Your task to perform on an android device: Clear the shopping cart on ebay.com. Search for asus zenbook on ebay.com, select the first entry, add it to the cart, then select checkout. Image 0: 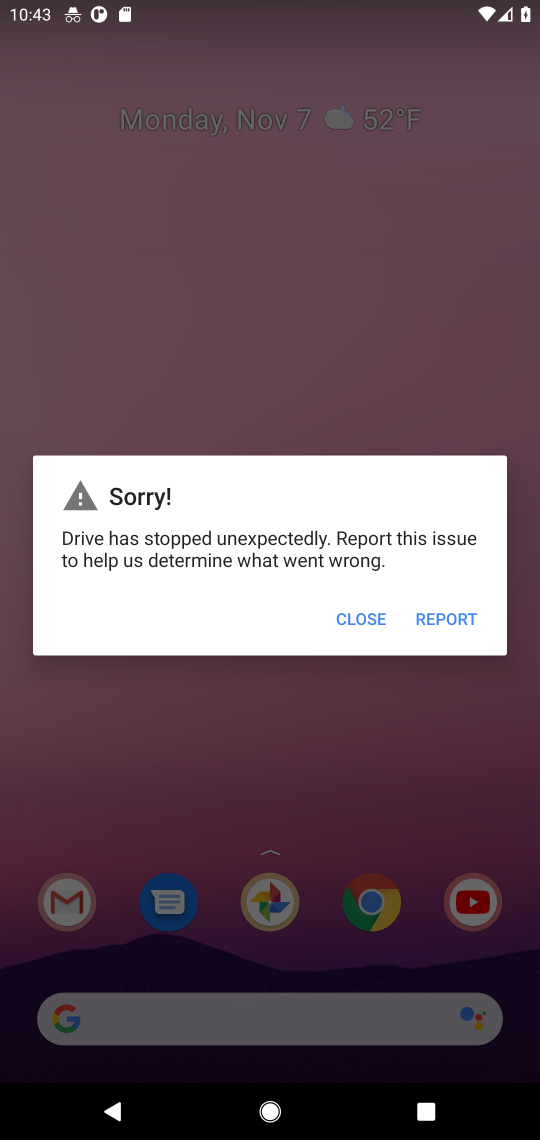
Step 0: press home button
Your task to perform on an android device: Clear the shopping cart on ebay.com. Search for asus zenbook on ebay.com, select the first entry, add it to the cart, then select checkout. Image 1: 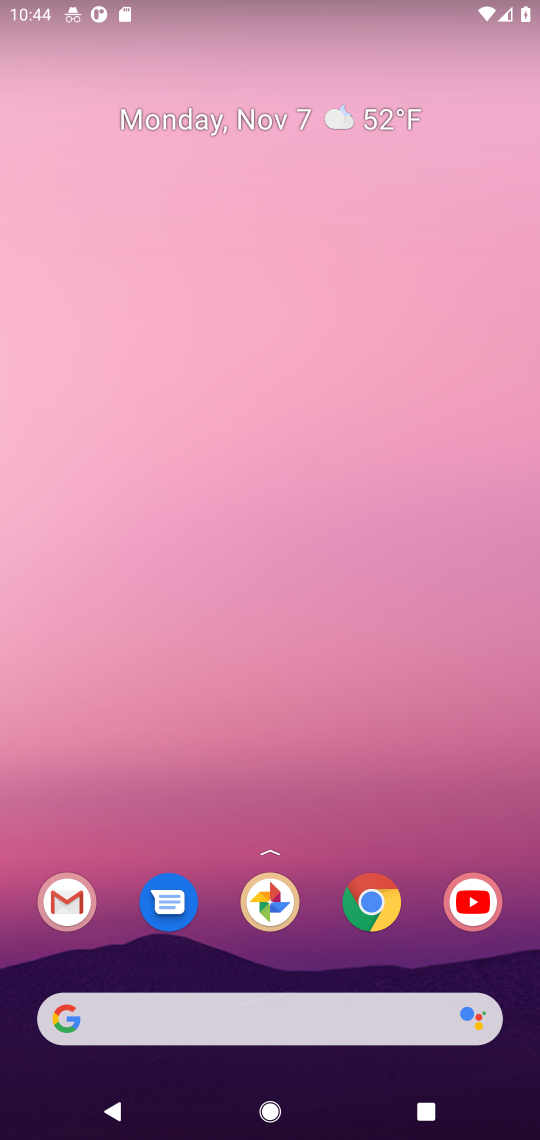
Step 1: click (372, 909)
Your task to perform on an android device: Clear the shopping cart on ebay.com. Search for asus zenbook on ebay.com, select the first entry, add it to the cart, then select checkout. Image 2: 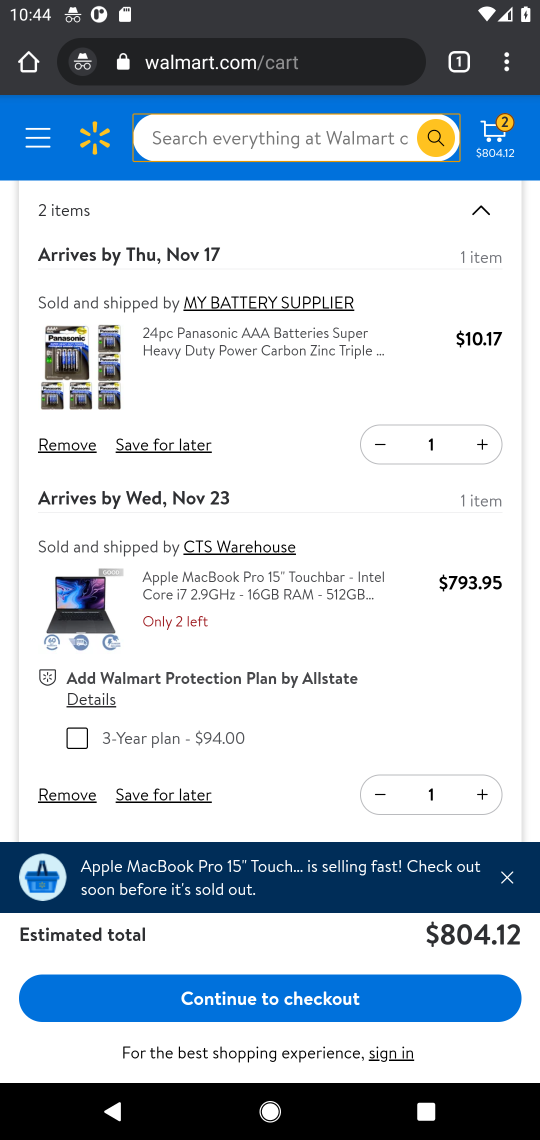
Step 2: click (213, 69)
Your task to perform on an android device: Clear the shopping cart on ebay.com. Search for asus zenbook on ebay.com, select the first entry, add it to the cart, then select checkout. Image 3: 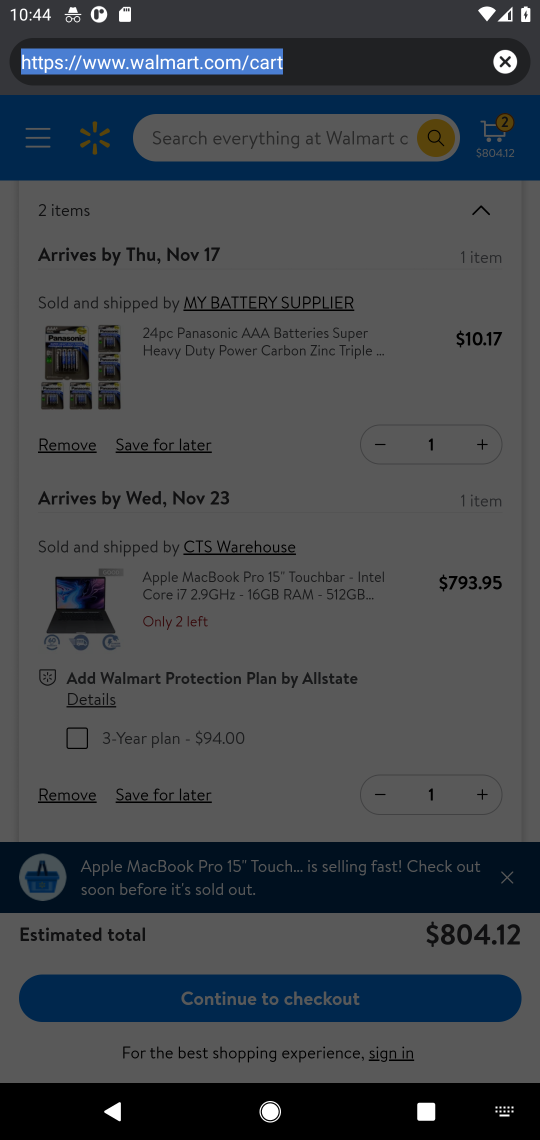
Step 3: type "ebay.com"
Your task to perform on an android device: Clear the shopping cart on ebay.com. Search for asus zenbook on ebay.com, select the first entry, add it to the cart, then select checkout. Image 4: 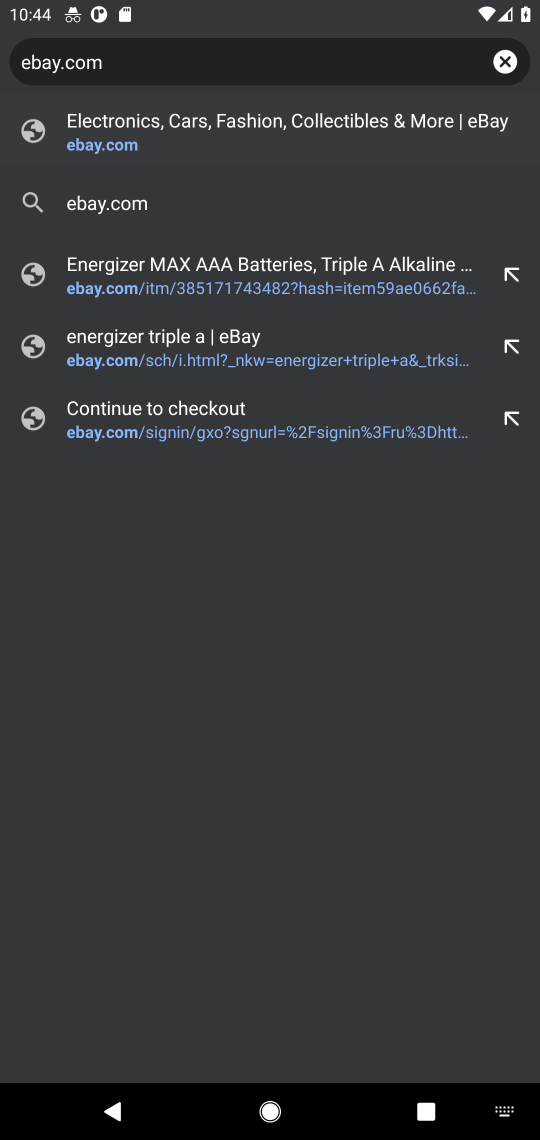
Step 4: click (105, 143)
Your task to perform on an android device: Clear the shopping cart on ebay.com. Search for asus zenbook on ebay.com, select the first entry, add it to the cart, then select checkout. Image 5: 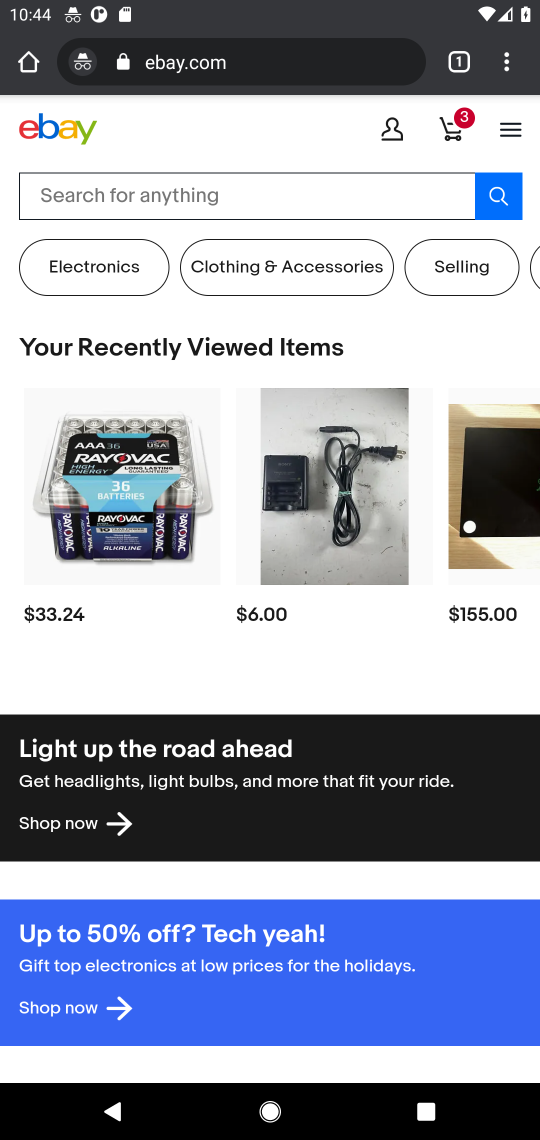
Step 5: click (460, 134)
Your task to perform on an android device: Clear the shopping cart on ebay.com. Search for asus zenbook on ebay.com, select the first entry, add it to the cart, then select checkout. Image 6: 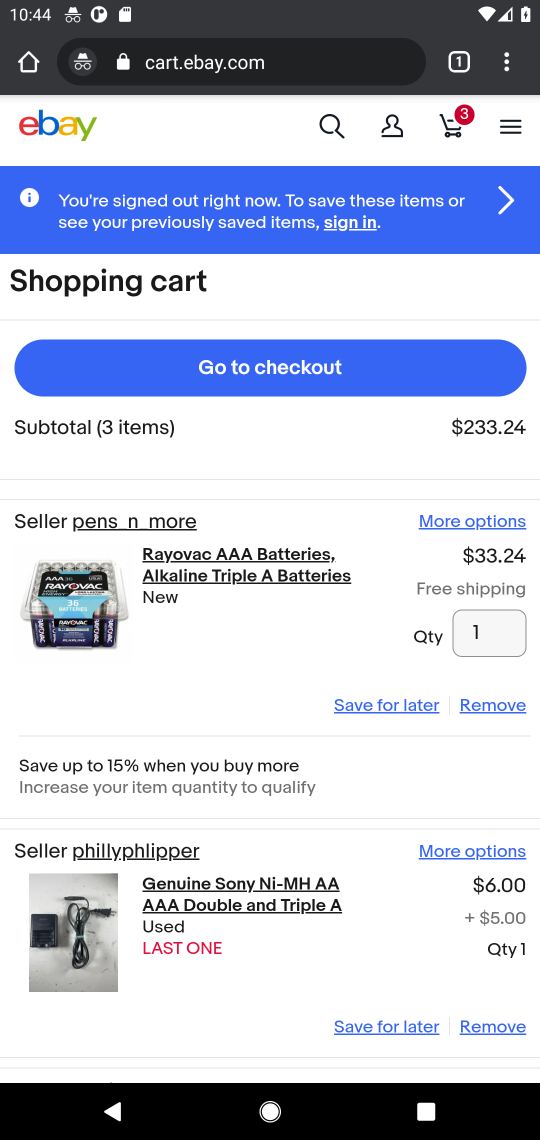
Step 6: click (483, 707)
Your task to perform on an android device: Clear the shopping cart on ebay.com. Search for asus zenbook on ebay.com, select the first entry, add it to the cart, then select checkout. Image 7: 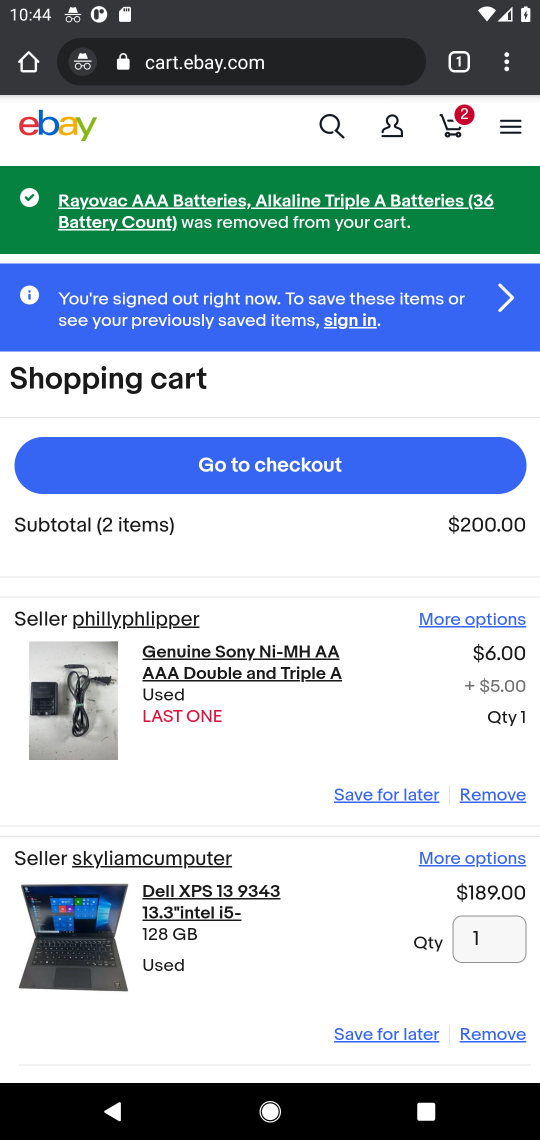
Step 7: click (476, 797)
Your task to perform on an android device: Clear the shopping cart on ebay.com. Search for asus zenbook on ebay.com, select the first entry, add it to the cart, then select checkout. Image 8: 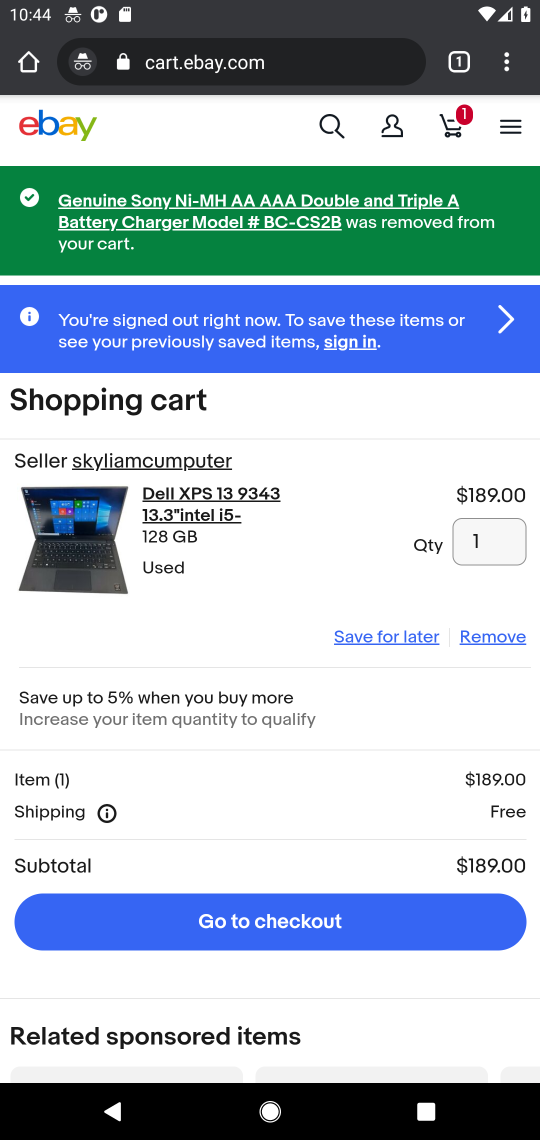
Step 8: click (489, 645)
Your task to perform on an android device: Clear the shopping cart on ebay.com. Search for asus zenbook on ebay.com, select the first entry, add it to the cart, then select checkout. Image 9: 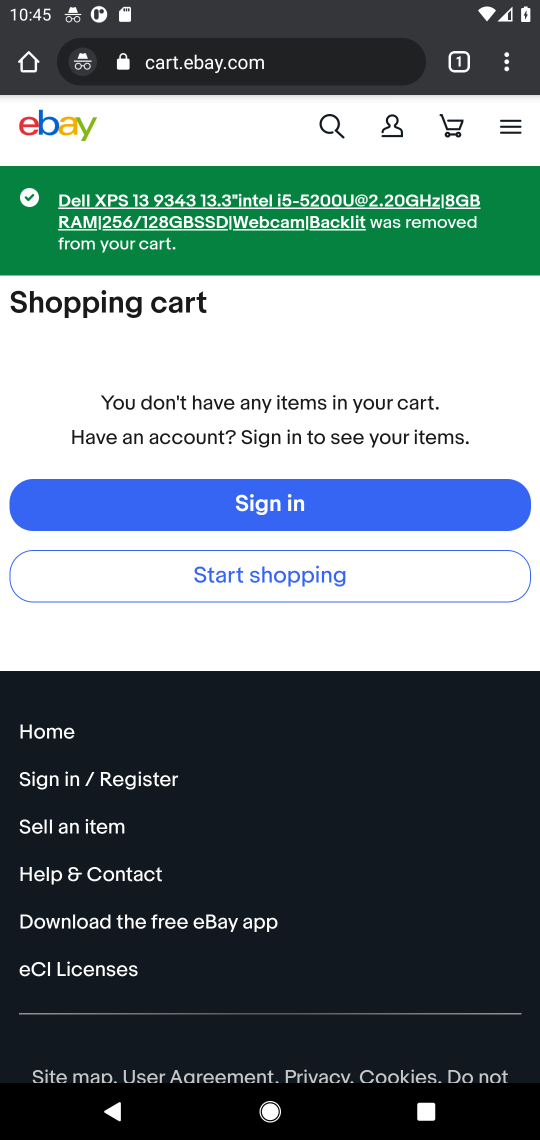
Step 9: click (335, 127)
Your task to perform on an android device: Clear the shopping cart on ebay.com. Search for asus zenbook on ebay.com, select the first entry, add it to the cart, then select checkout. Image 10: 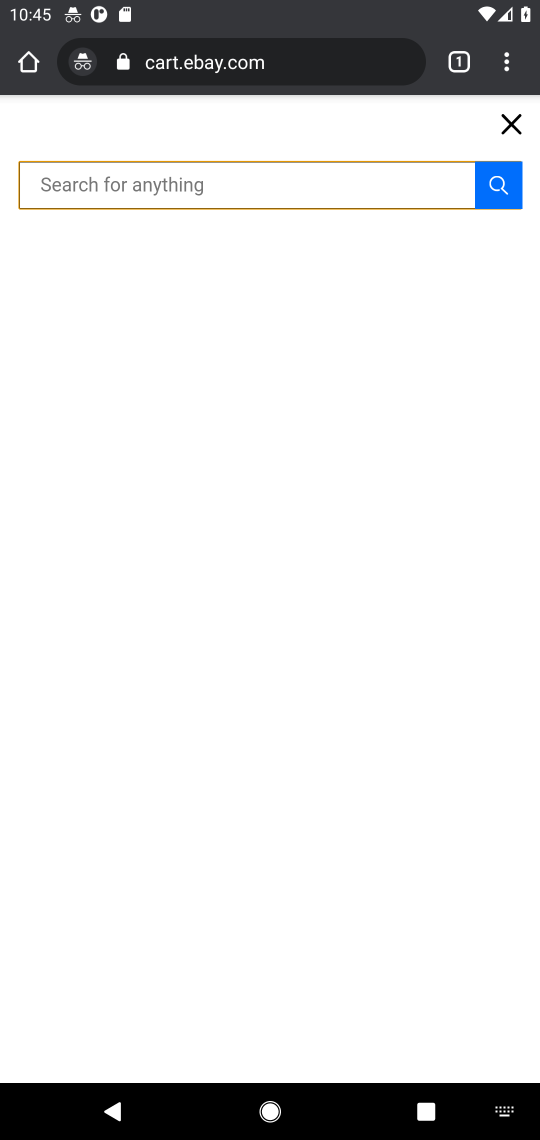
Step 10: type " asus zenbook"
Your task to perform on an android device: Clear the shopping cart on ebay.com. Search for asus zenbook on ebay.com, select the first entry, add it to the cart, then select checkout. Image 11: 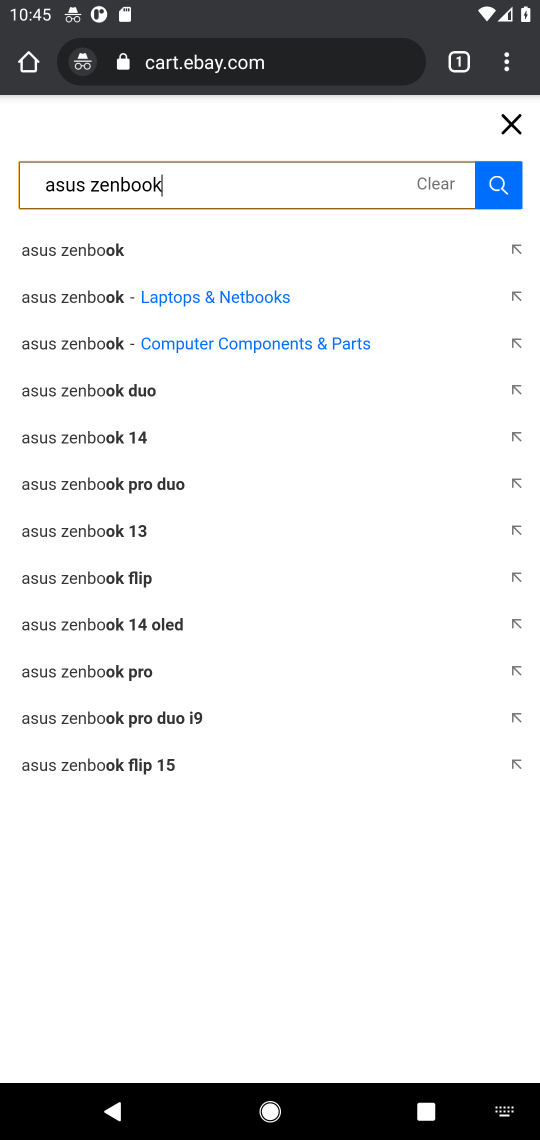
Step 11: click (98, 264)
Your task to perform on an android device: Clear the shopping cart on ebay.com. Search for asus zenbook on ebay.com, select the first entry, add it to the cart, then select checkout. Image 12: 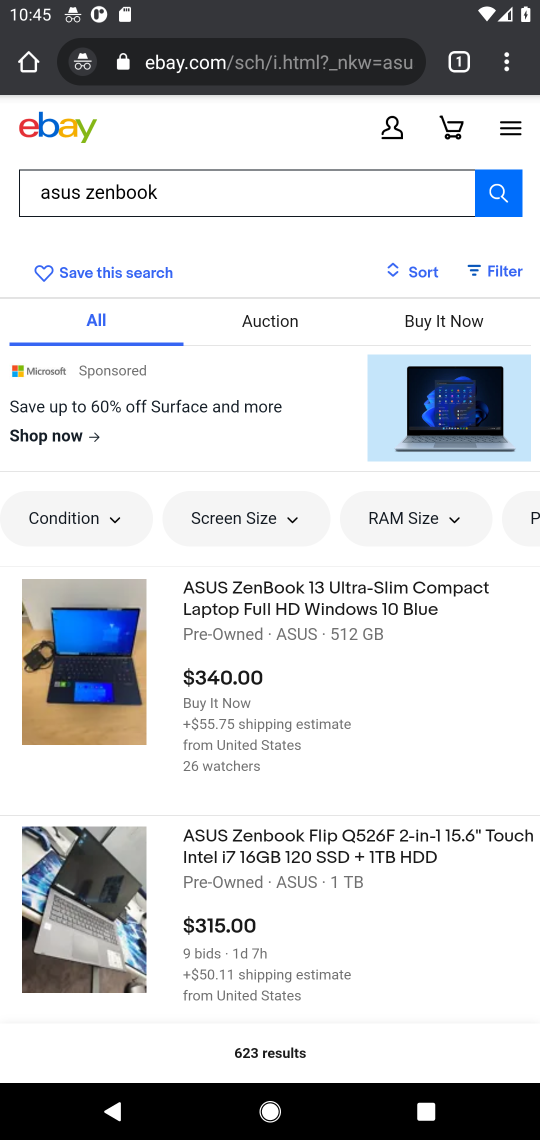
Step 12: click (143, 689)
Your task to perform on an android device: Clear the shopping cart on ebay.com. Search for asus zenbook on ebay.com, select the first entry, add it to the cart, then select checkout. Image 13: 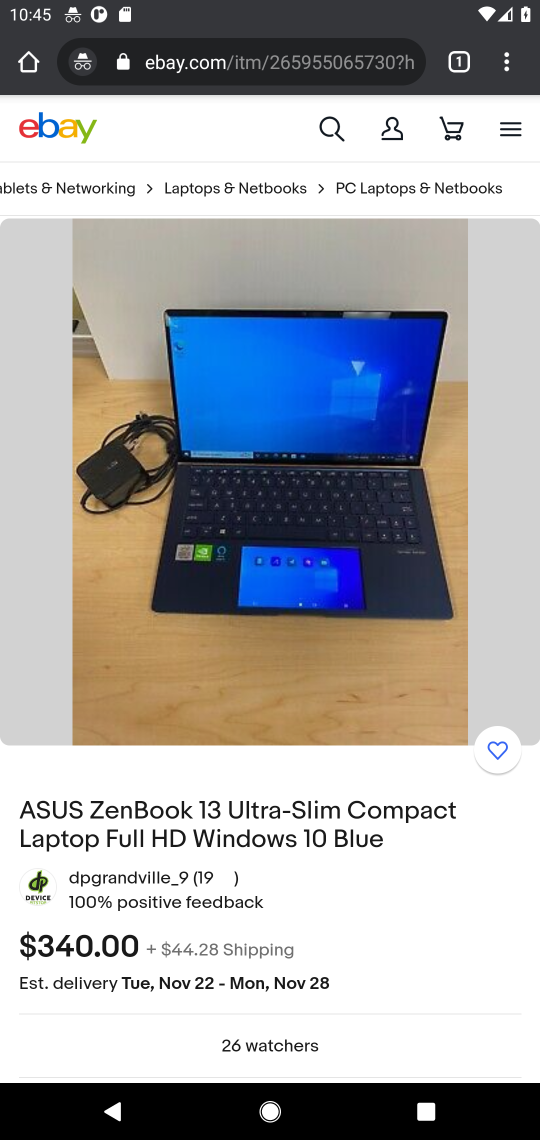
Step 13: drag from (329, 866) to (320, 440)
Your task to perform on an android device: Clear the shopping cart on ebay.com. Search for asus zenbook on ebay.com, select the first entry, add it to the cart, then select checkout. Image 14: 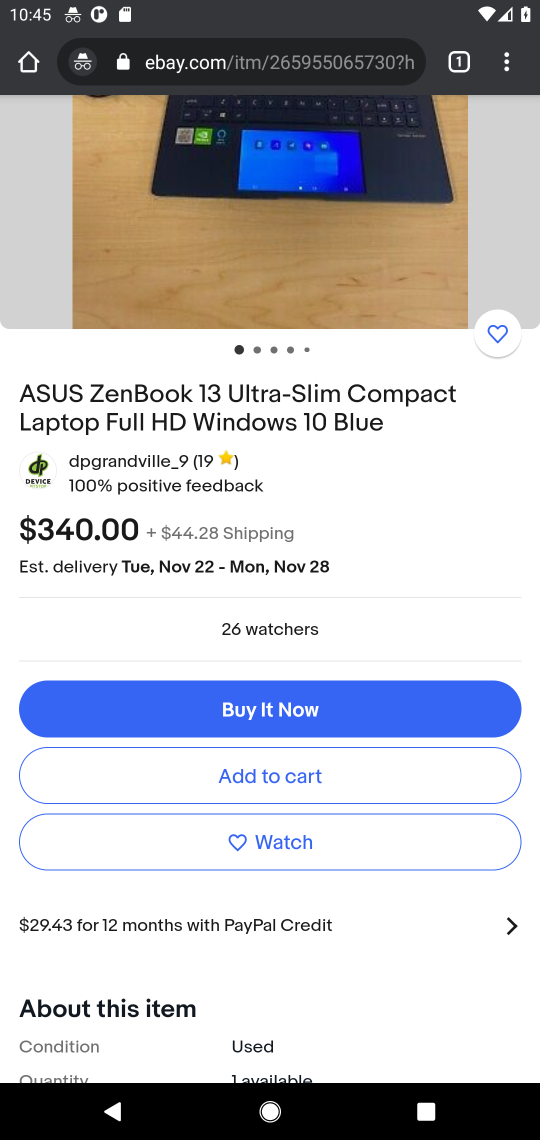
Step 14: click (245, 768)
Your task to perform on an android device: Clear the shopping cart on ebay.com. Search for asus zenbook on ebay.com, select the first entry, add it to the cart, then select checkout. Image 15: 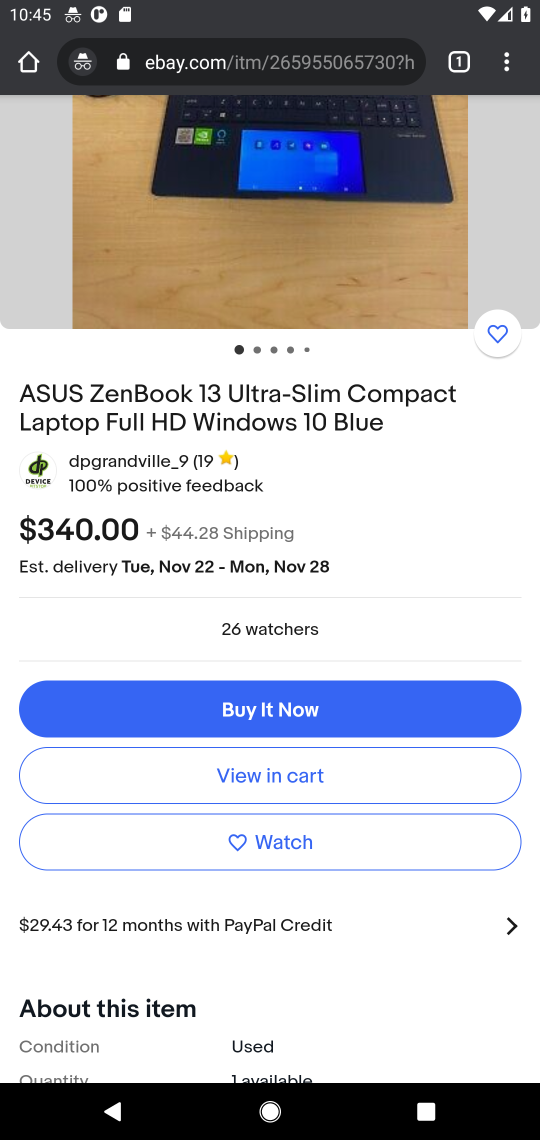
Step 15: click (245, 768)
Your task to perform on an android device: Clear the shopping cart on ebay.com. Search for asus zenbook on ebay.com, select the first entry, add it to the cart, then select checkout. Image 16: 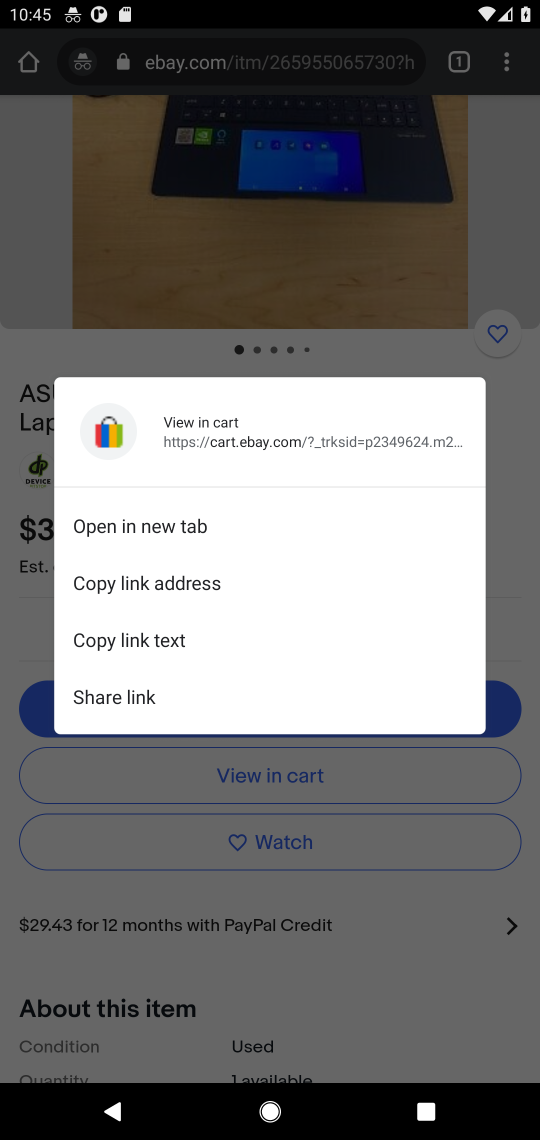
Step 16: click (245, 768)
Your task to perform on an android device: Clear the shopping cart on ebay.com. Search for asus zenbook on ebay.com, select the first entry, add it to the cart, then select checkout. Image 17: 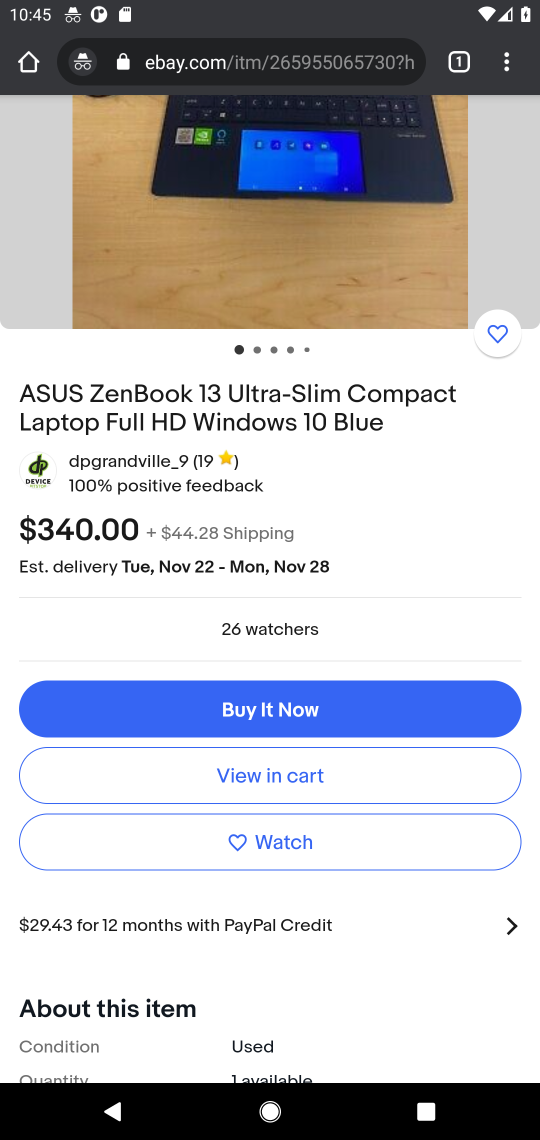
Step 17: click (250, 783)
Your task to perform on an android device: Clear the shopping cart on ebay.com. Search for asus zenbook on ebay.com, select the first entry, add it to the cart, then select checkout. Image 18: 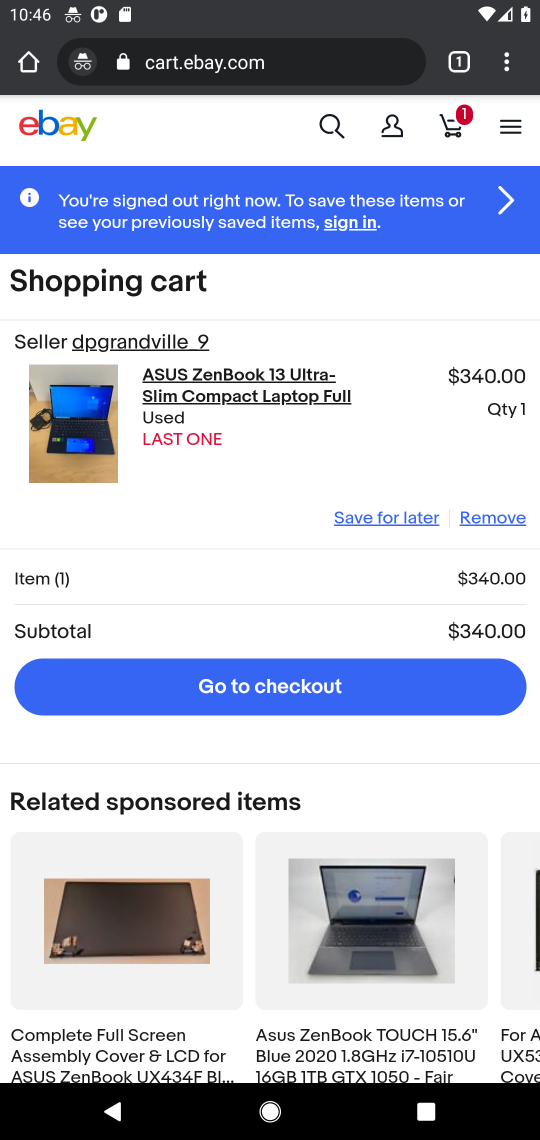
Step 18: click (238, 697)
Your task to perform on an android device: Clear the shopping cart on ebay.com. Search for asus zenbook on ebay.com, select the first entry, add it to the cart, then select checkout. Image 19: 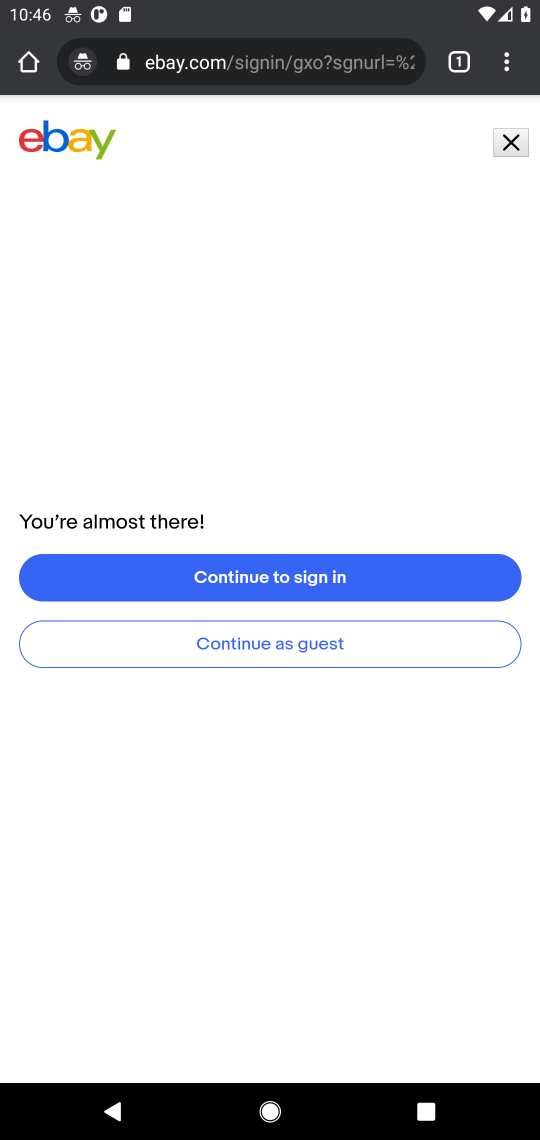
Step 19: task complete